Your task to perform on an android device: Open Chrome and go to settings Image 0: 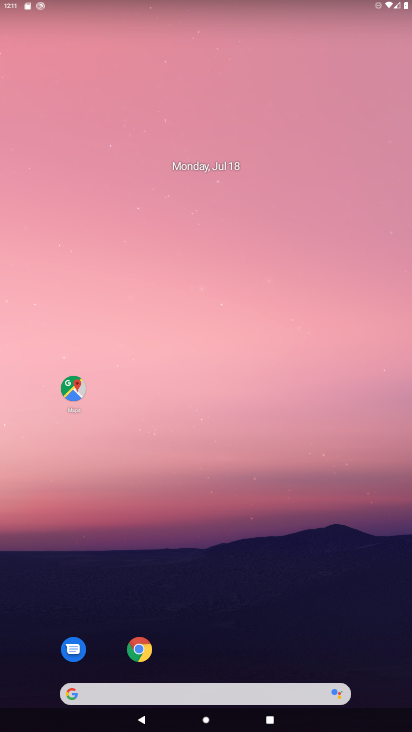
Step 0: click (141, 660)
Your task to perform on an android device: Open Chrome and go to settings Image 1: 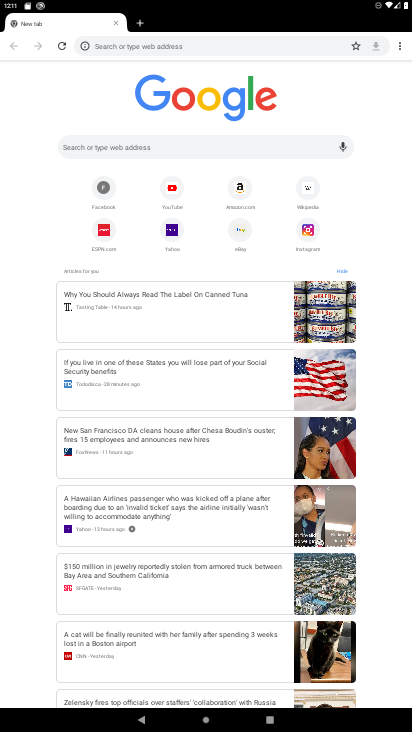
Step 1: task complete